Your task to perform on an android device: toggle data saver in the chrome app Image 0: 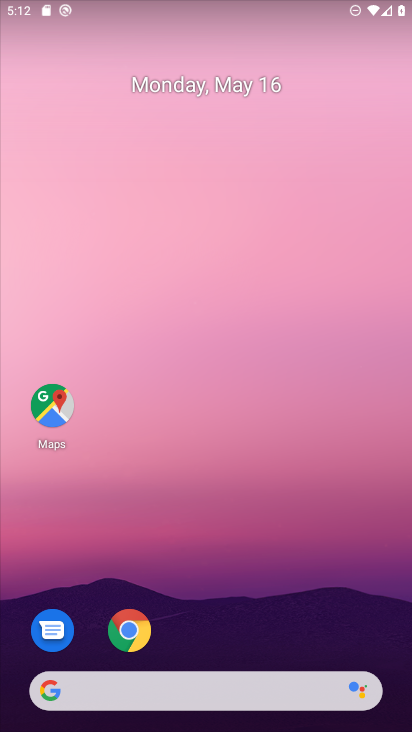
Step 0: click (134, 614)
Your task to perform on an android device: toggle data saver in the chrome app Image 1: 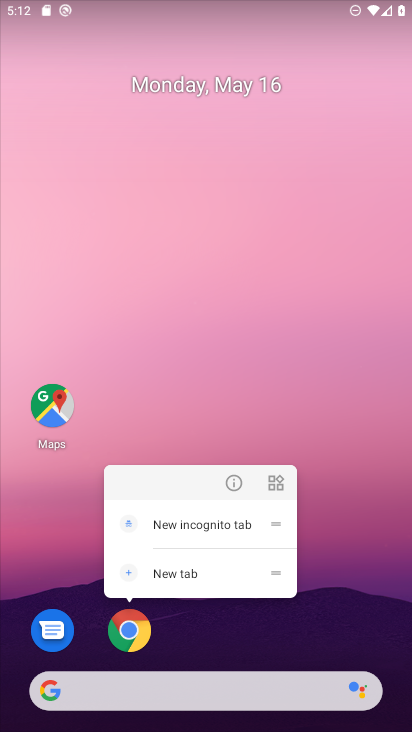
Step 1: click (127, 632)
Your task to perform on an android device: toggle data saver in the chrome app Image 2: 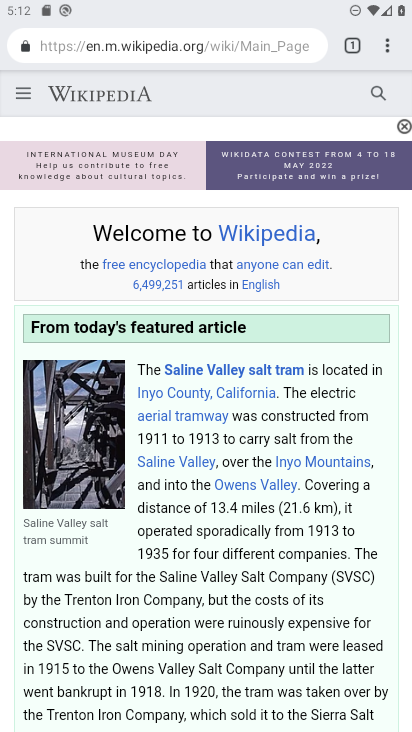
Step 2: drag from (380, 47) to (247, 568)
Your task to perform on an android device: toggle data saver in the chrome app Image 3: 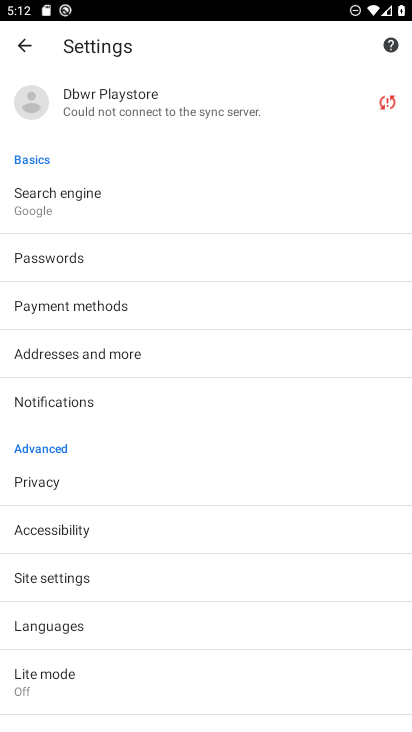
Step 3: click (109, 674)
Your task to perform on an android device: toggle data saver in the chrome app Image 4: 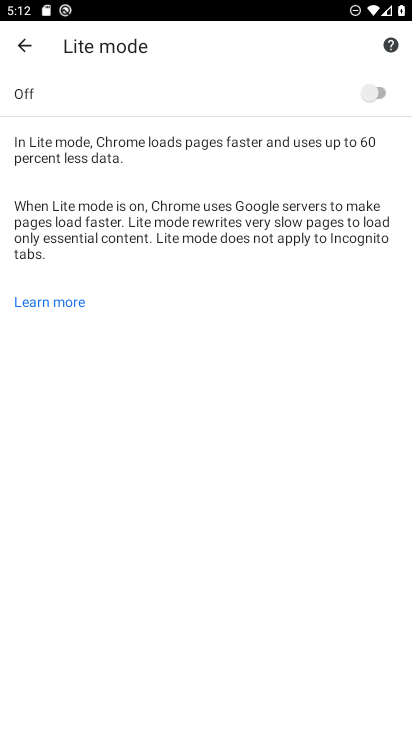
Step 4: click (296, 92)
Your task to perform on an android device: toggle data saver in the chrome app Image 5: 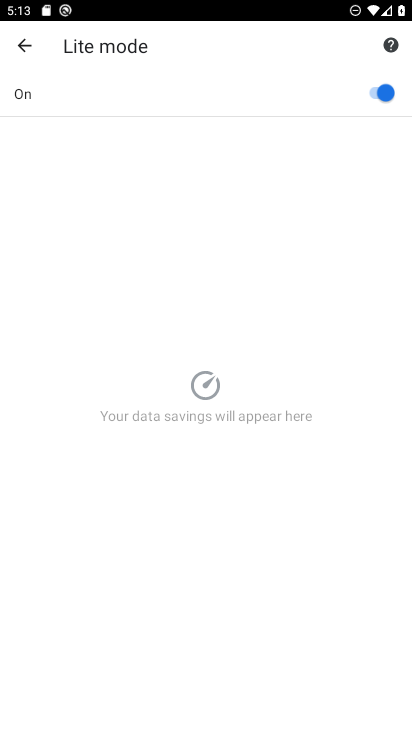
Step 5: task complete